Your task to perform on an android device: turn on translation in the chrome app Image 0: 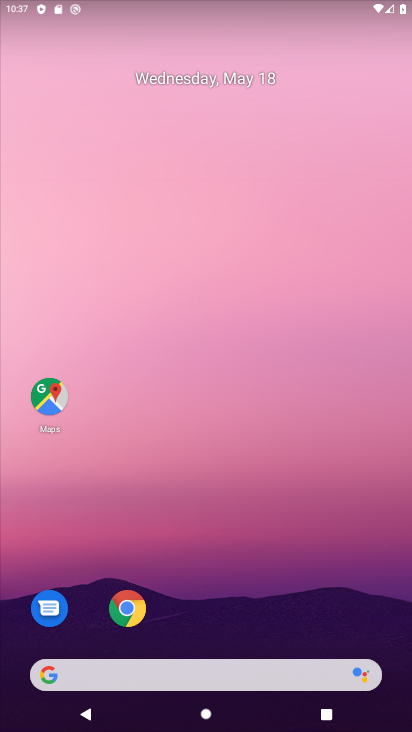
Step 0: press home button
Your task to perform on an android device: turn on translation in the chrome app Image 1: 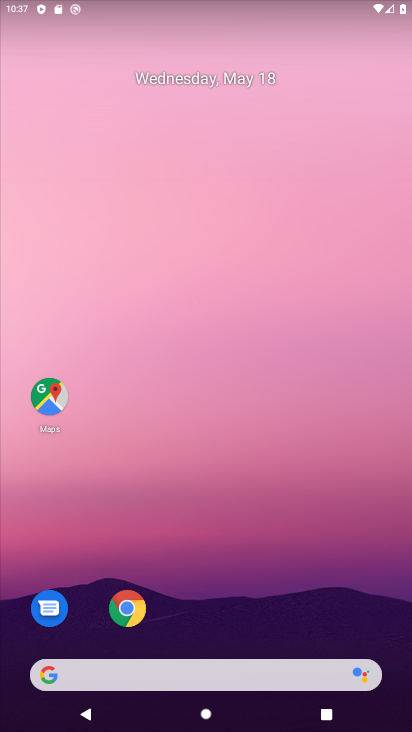
Step 1: click (119, 611)
Your task to perform on an android device: turn on translation in the chrome app Image 2: 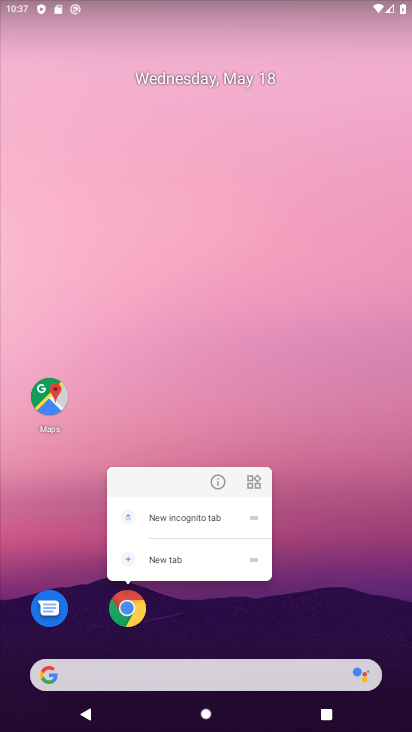
Step 2: click (115, 604)
Your task to perform on an android device: turn on translation in the chrome app Image 3: 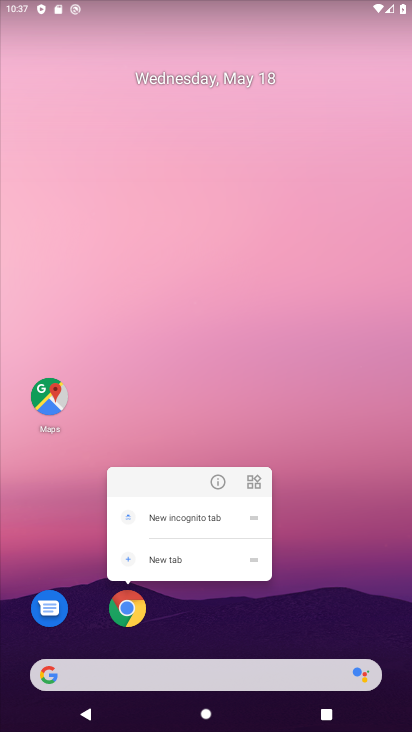
Step 3: click (138, 611)
Your task to perform on an android device: turn on translation in the chrome app Image 4: 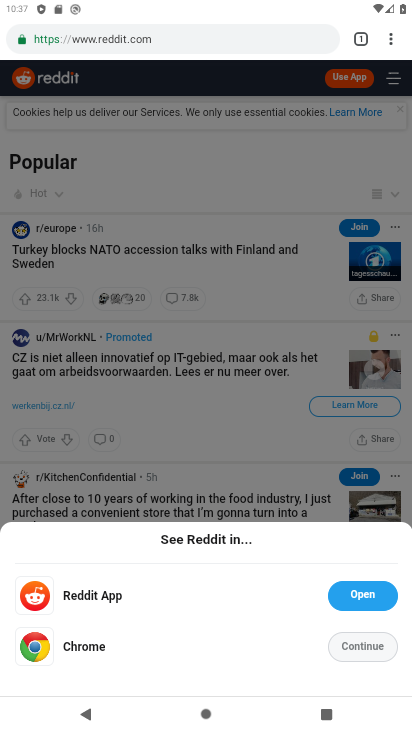
Step 4: drag from (391, 33) to (259, 466)
Your task to perform on an android device: turn on translation in the chrome app Image 5: 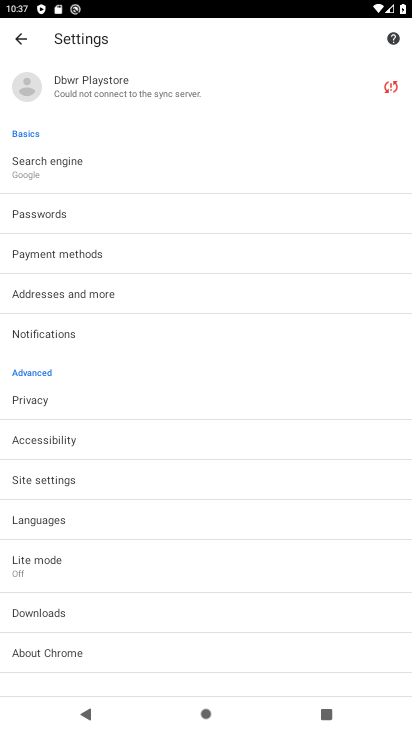
Step 5: click (73, 525)
Your task to perform on an android device: turn on translation in the chrome app Image 6: 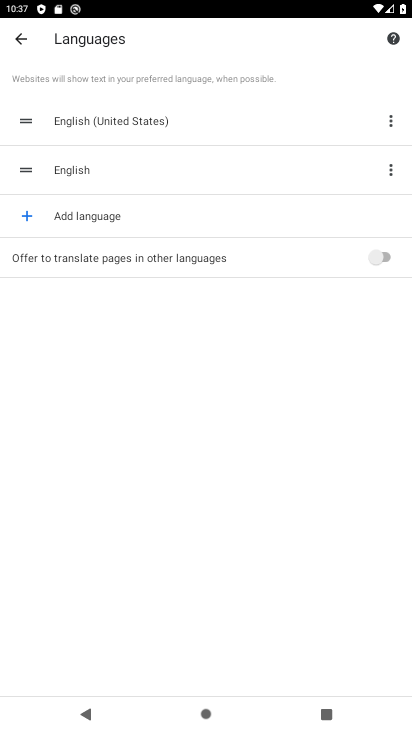
Step 6: click (383, 250)
Your task to perform on an android device: turn on translation in the chrome app Image 7: 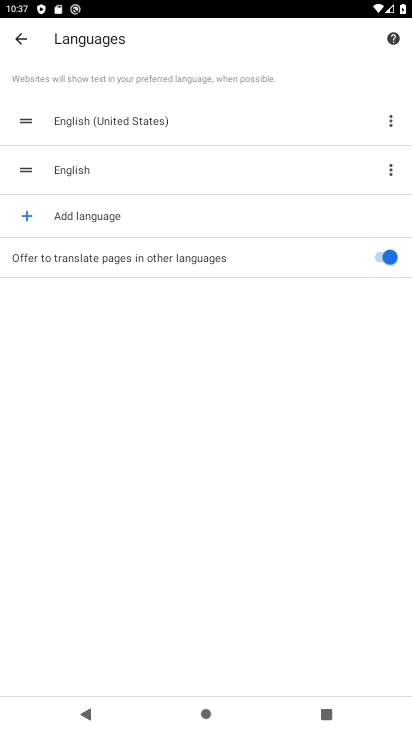
Step 7: task complete